Your task to perform on an android device: Open CNN.com Image 0: 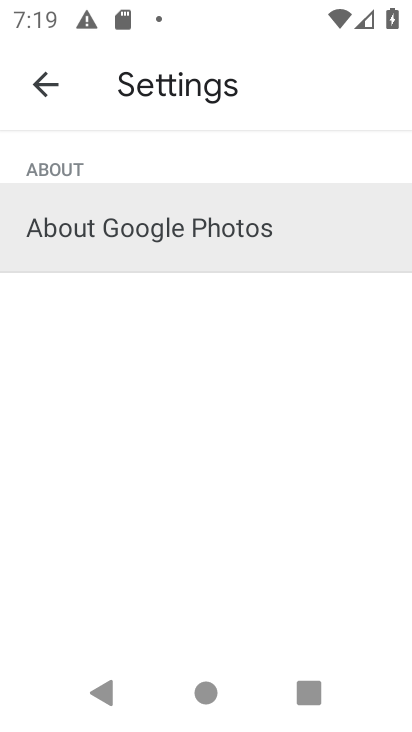
Step 0: press enter
Your task to perform on an android device: Open CNN.com Image 1: 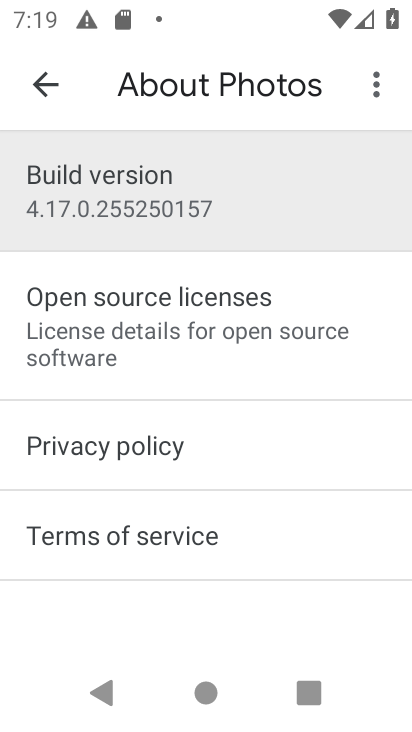
Step 1: type "CNN.com"
Your task to perform on an android device: Open CNN.com Image 2: 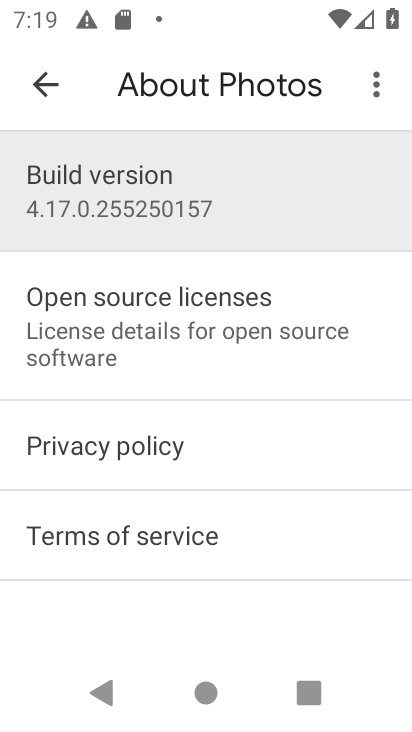
Step 2: type ""
Your task to perform on an android device: Open CNN.com Image 3: 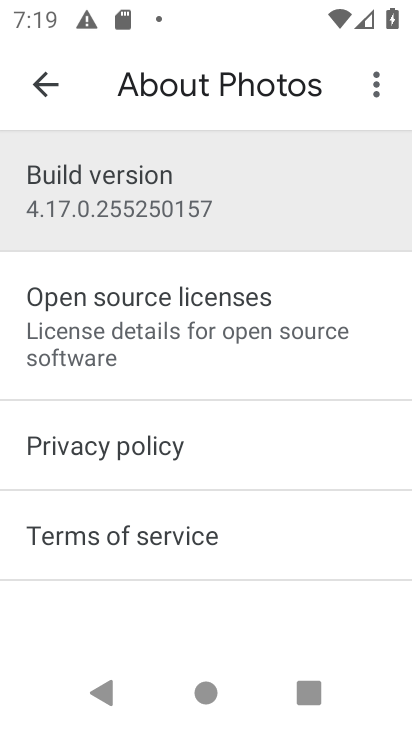
Step 3: click (34, 91)
Your task to perform on an android device: Open CNN.com Image 4: 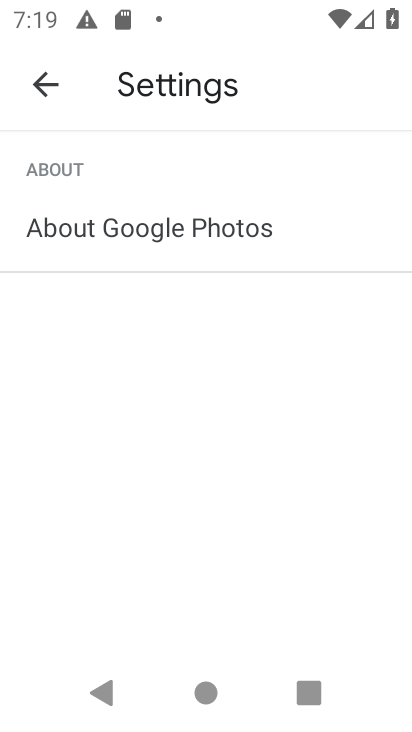
Step 4: click (34, 91)
Your task to perform on an android device: Open CNN.com Image 5: 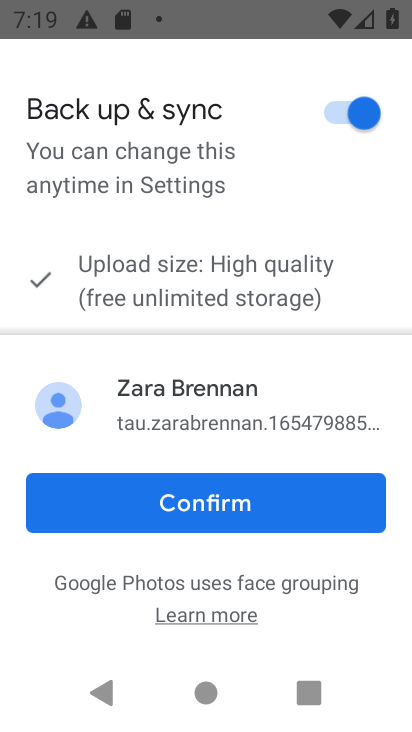
Step 5: press enter
Your task to perform on an android device: Open CNN.com Image 6: 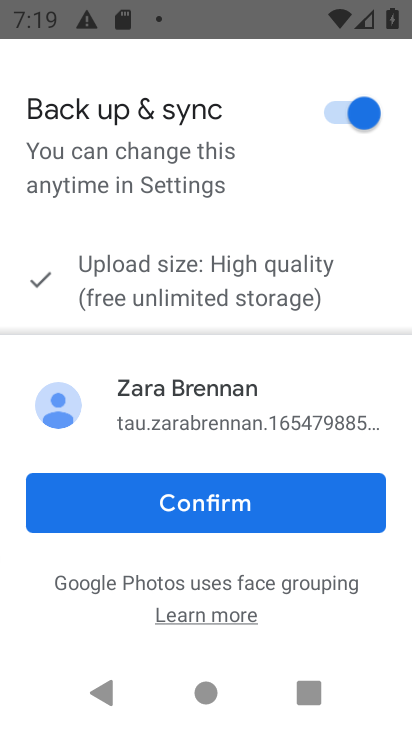
Step 6: task complete